Your task to perform on an android device: turn notification dots on Image 0: 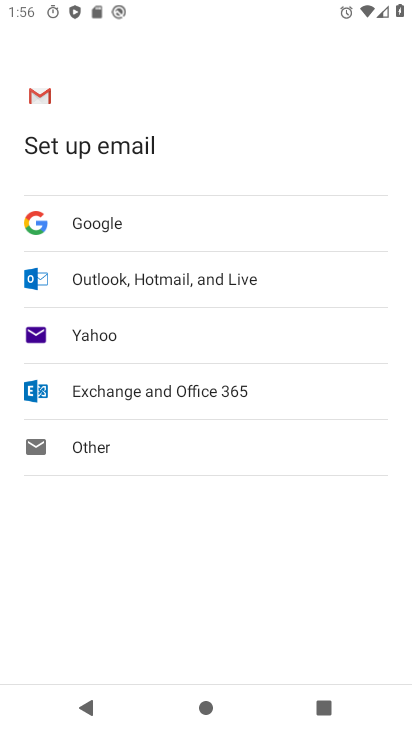
Step 0: press home button
Your task to perform on an android device: turn notification dots on Image 1: 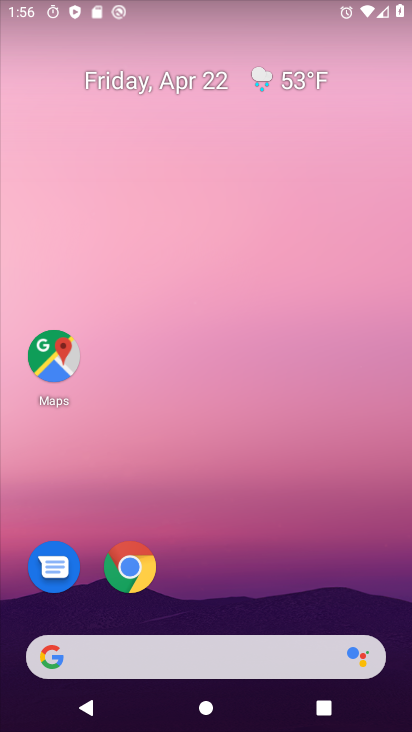
Step 1: drag from (286, 581) to (352, 64)
Your task to perform on an android device: turn notification dots on Image 2: 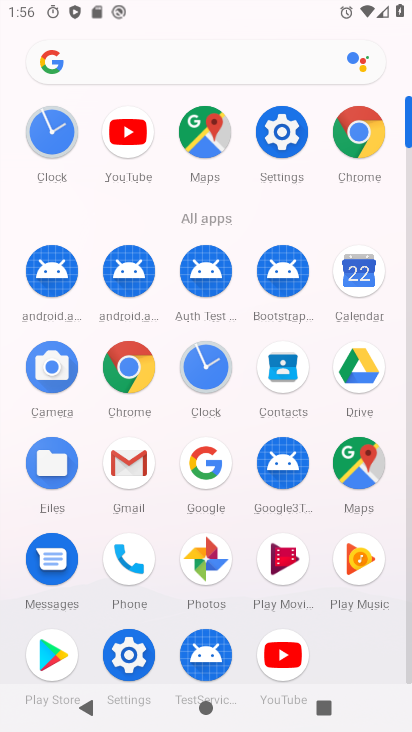
Step 2: click (287, 134)
Your task to perform on an android device: turn notification dots on Image 3: 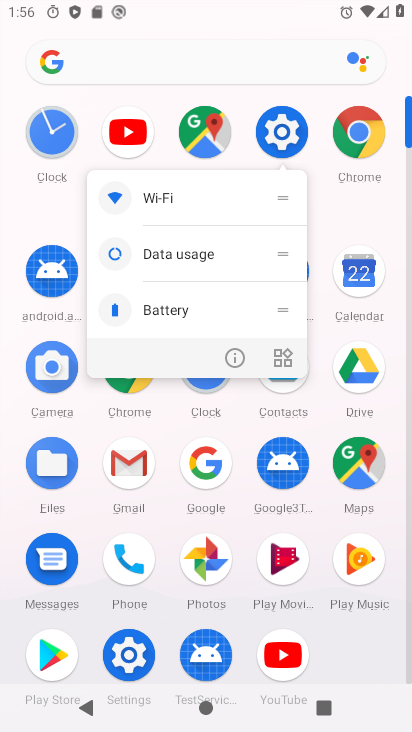
Step 3: click (287, 134)
Your task to perform on an android device: turn notification dots on Image 4: 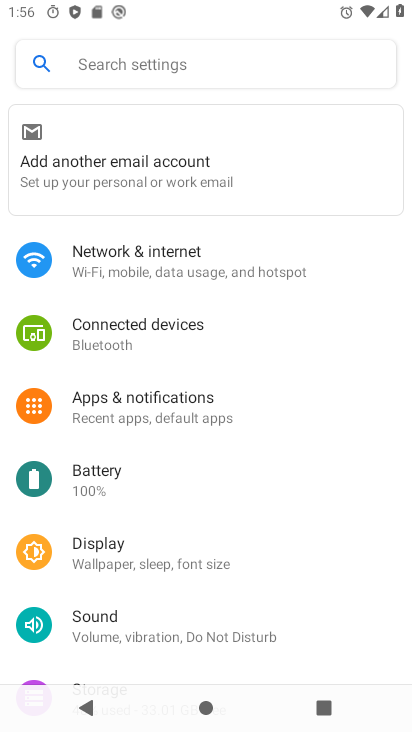
Step 4: click (231, 406)
Your task to perform on an android device: turn notification dots on Image 5: 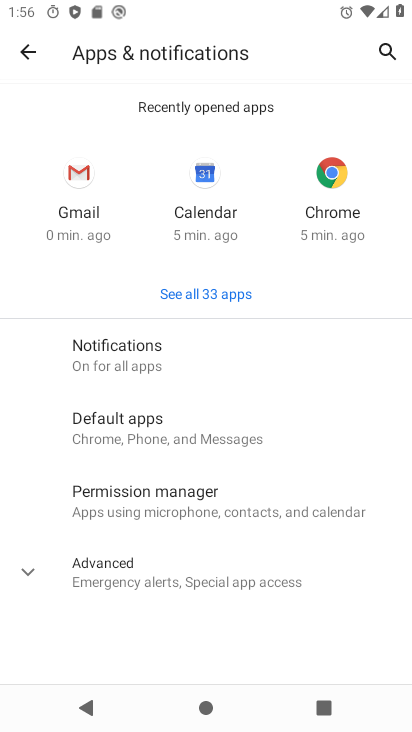
Step 5: click (201, 348)
Your task to perform on an android device: turn notification dots on Image 6: 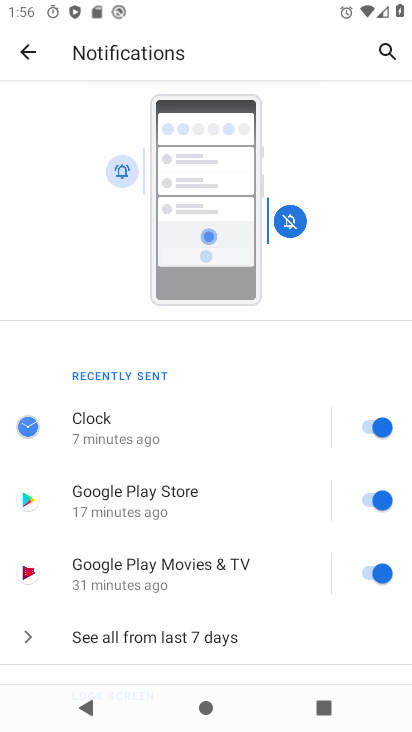
Step 6: drag from (266, 580) to (285, 110)
Your task to perform on an android device: turn notification dots on Image 7: 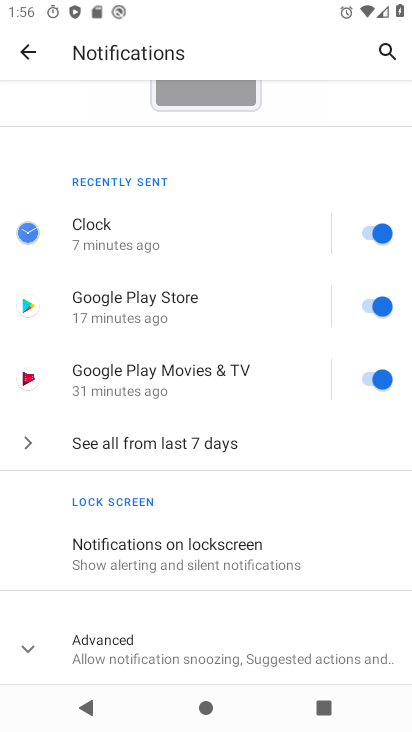
Step 7: click (31, 641)
Your task to perform on an android device: turn notification dots on Image 8: 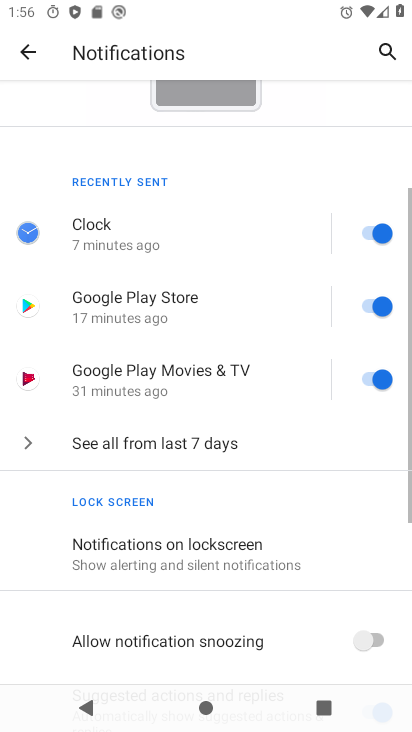
Step 8: drag from (206, 552) to (258, 197)
Your task to perform on an android device: turn notification dots on Image 9: 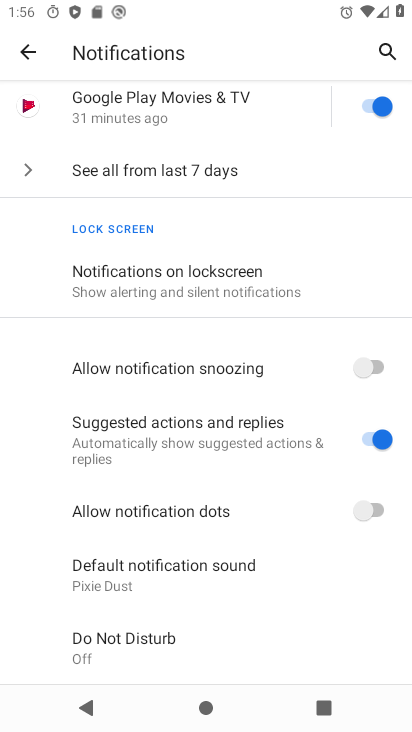
Step 9: click (369, 502)
Your task to perform on an android device: turn notification dots on Image 10: 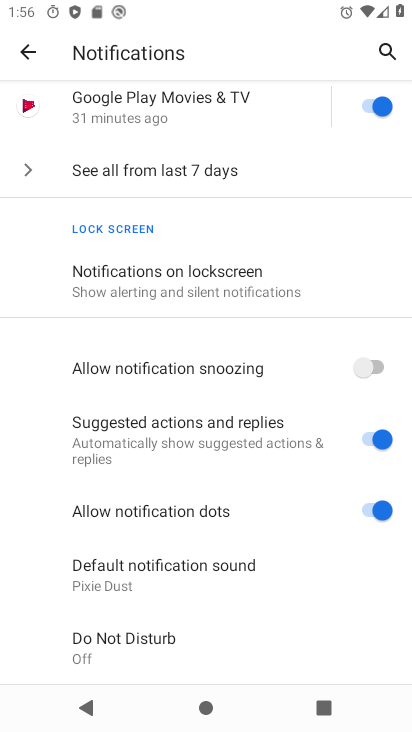
Step 10: task complete